Your task to perform on an android device: read, delete, or share a saved page in the chrome app Image 0: 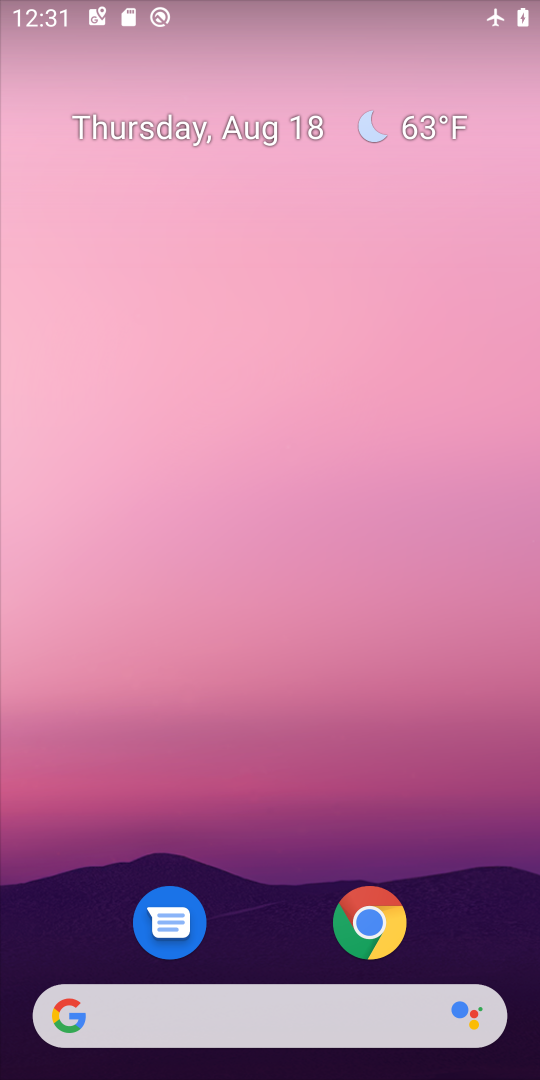
Step 0: click (385, 923)
Your task to perform on an android device: read, delete, or share a saved page in the chrome app Image 1: 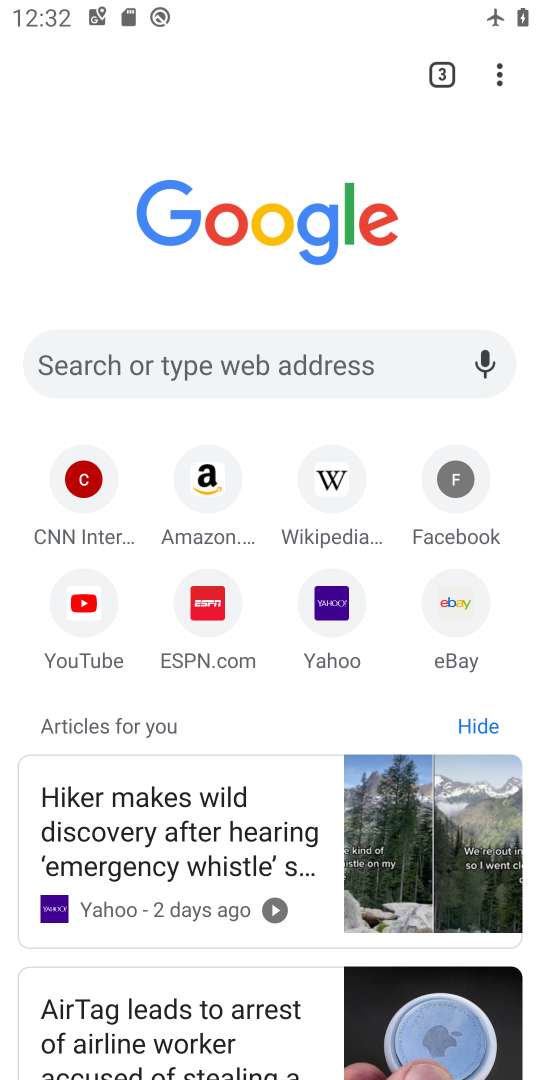
Step 1: click (499, 73)
Your task to perform on an android device: read, delete, or share a saved page in the chrome app Image 2: 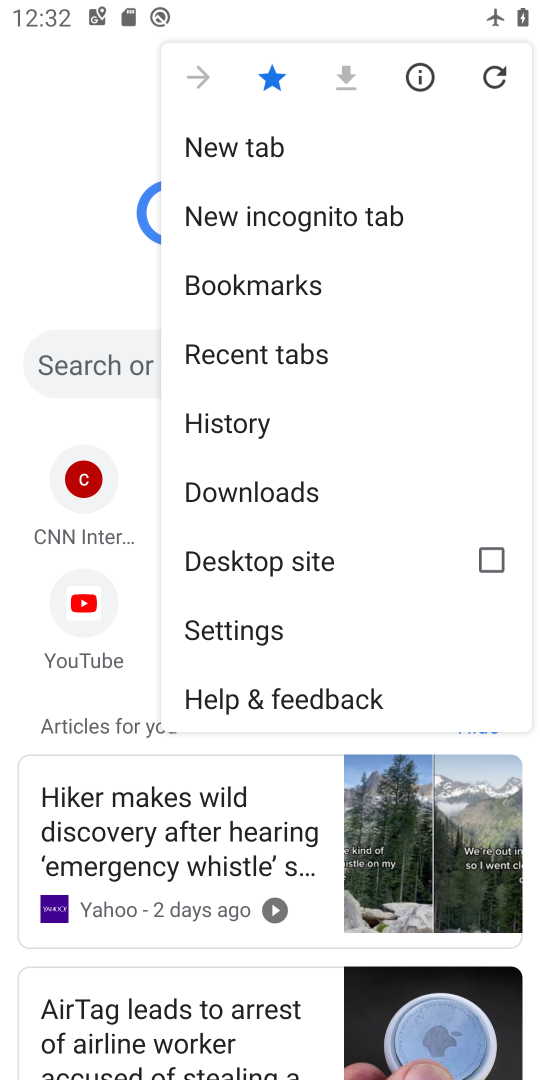
Step 2: click (235, 483)
Your task to perform on an android device: read, delete, or share a saved page in the chrome app Image 3: 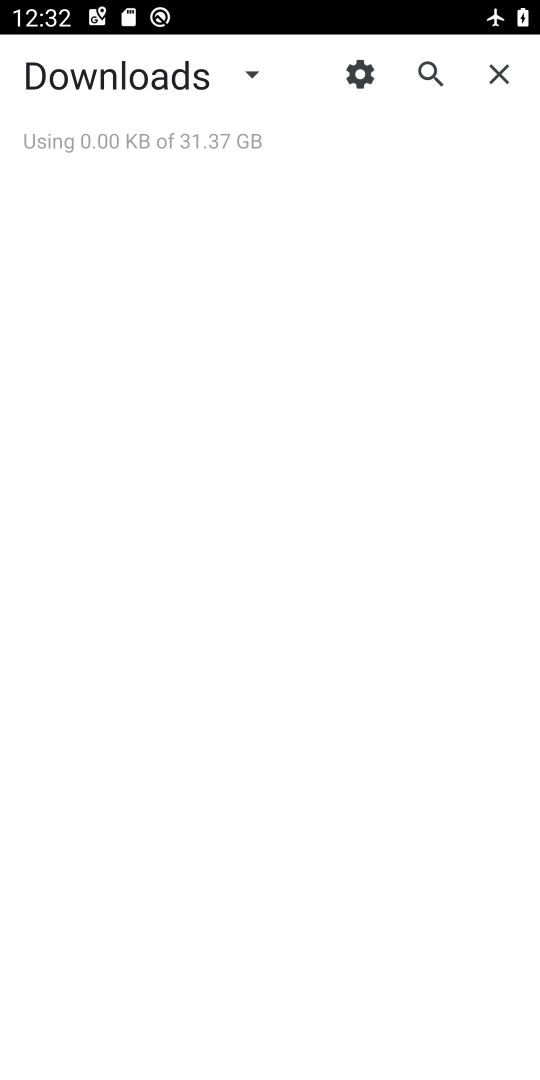
Step 3: task complete